Your task to perform on an android device: change the clock display to analog Image 0: 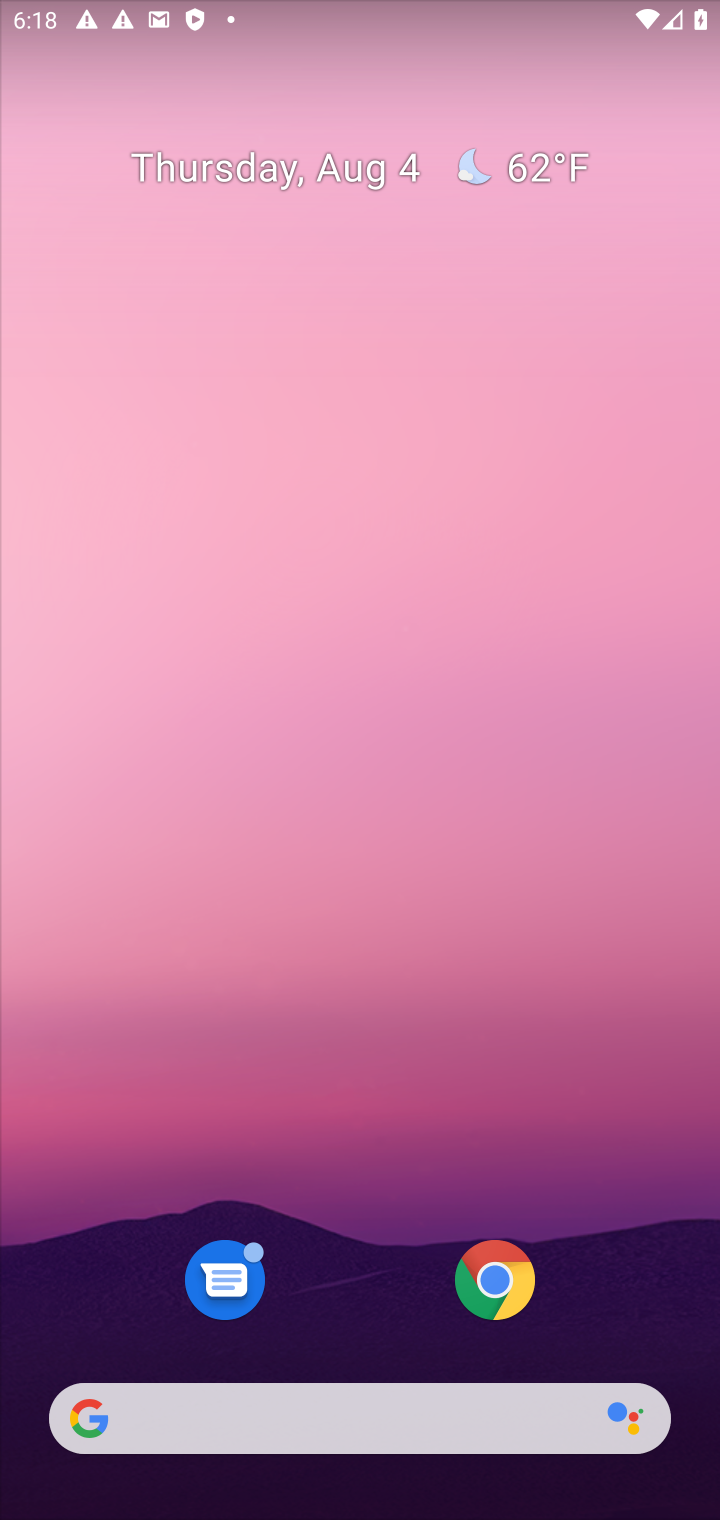
Step 0: drag from (324, 1262) to (271, 90)
Your task to perform on an android device: change the clock display to analog Image 1: 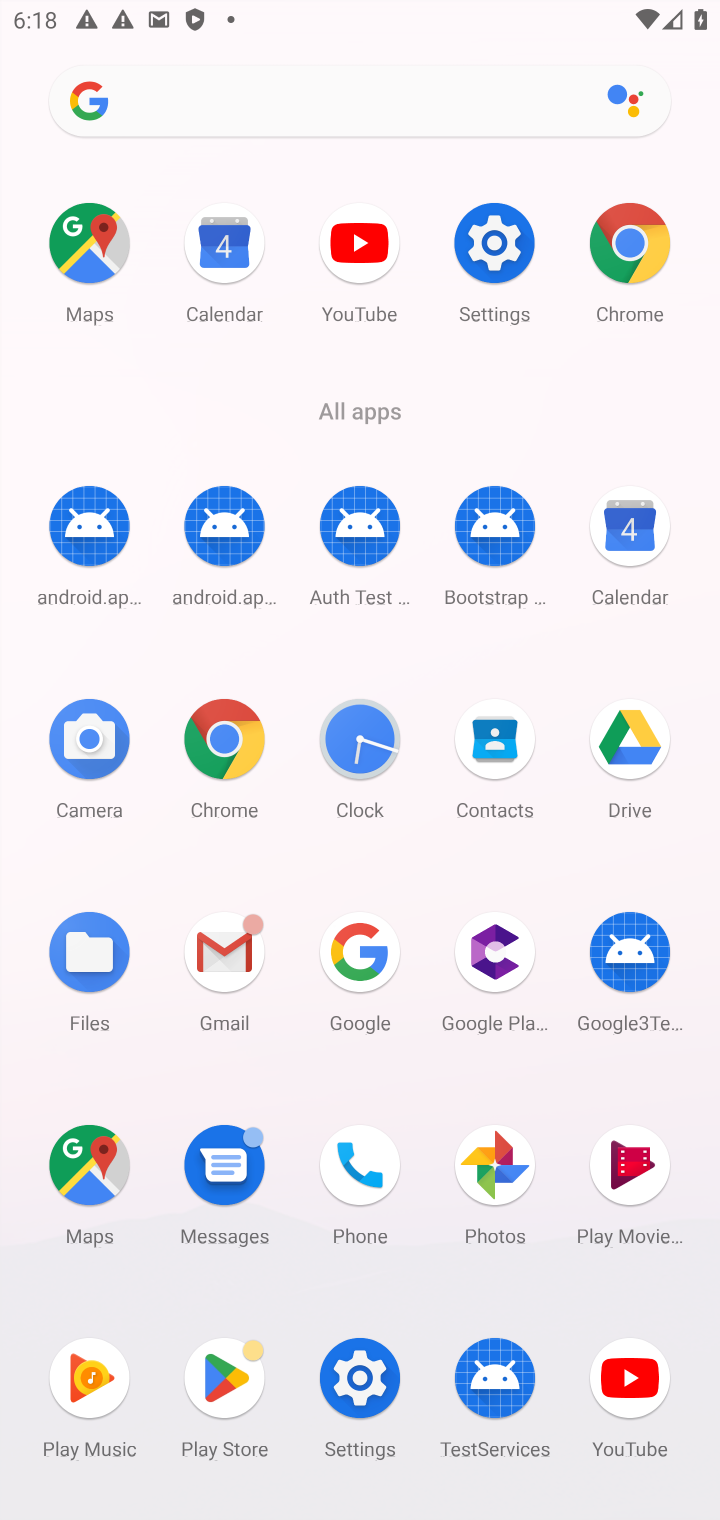
Step 1: click (356, 1377)
Your task to perform on an android device: change the clock display to analog Image 2: 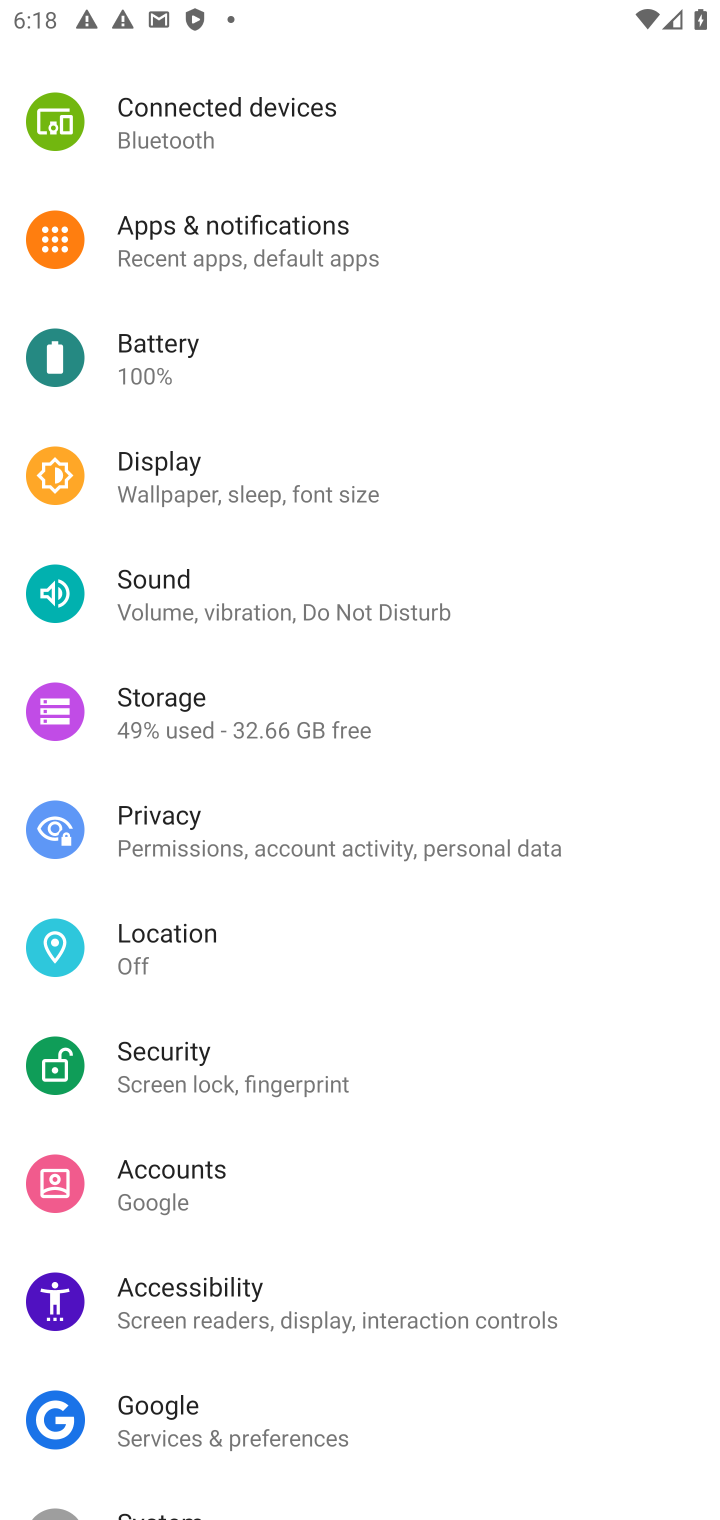
Step 2: press back button
Your task to perform on an android device: change the clock display to analog Image 3: 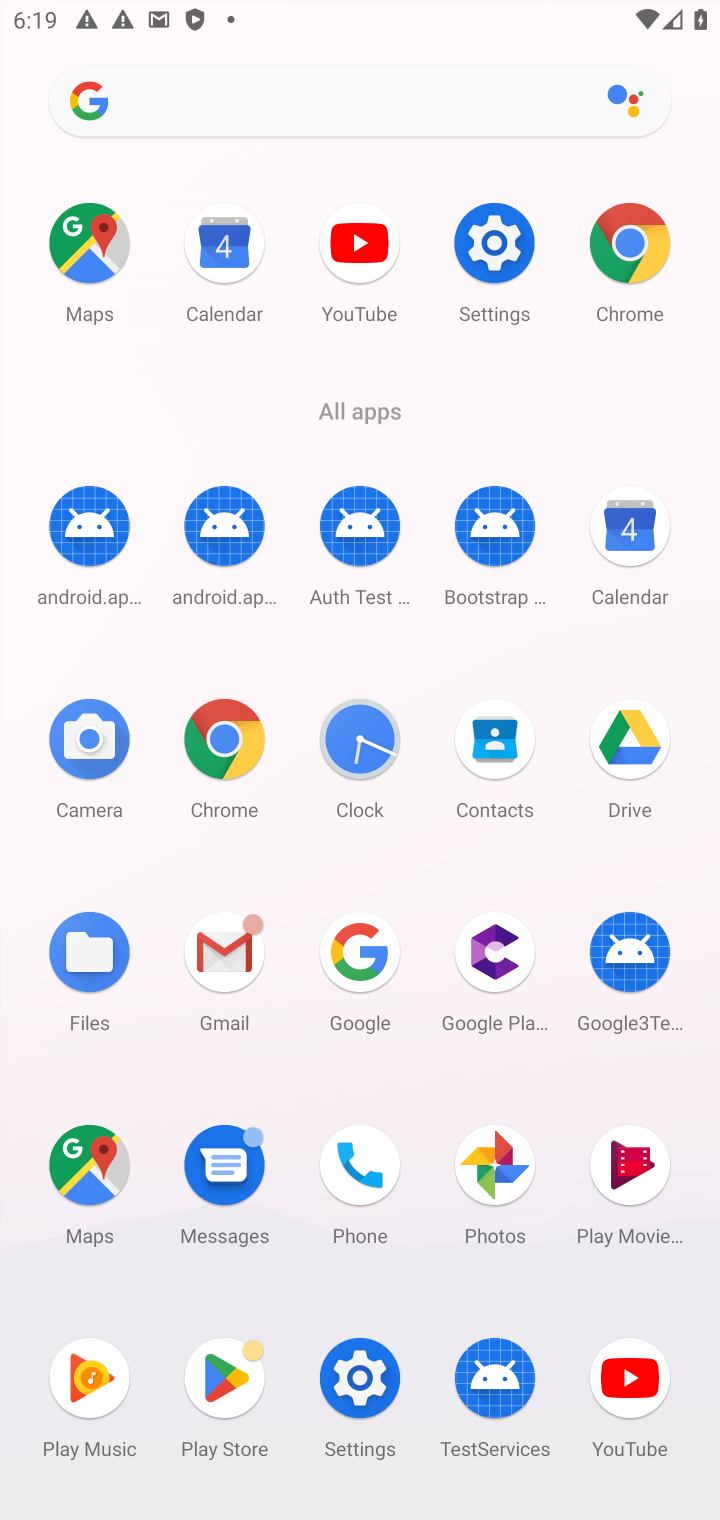
Step 3: click (372, 757)
Your task to perform on an android device: change the clock display to analog Image 4: 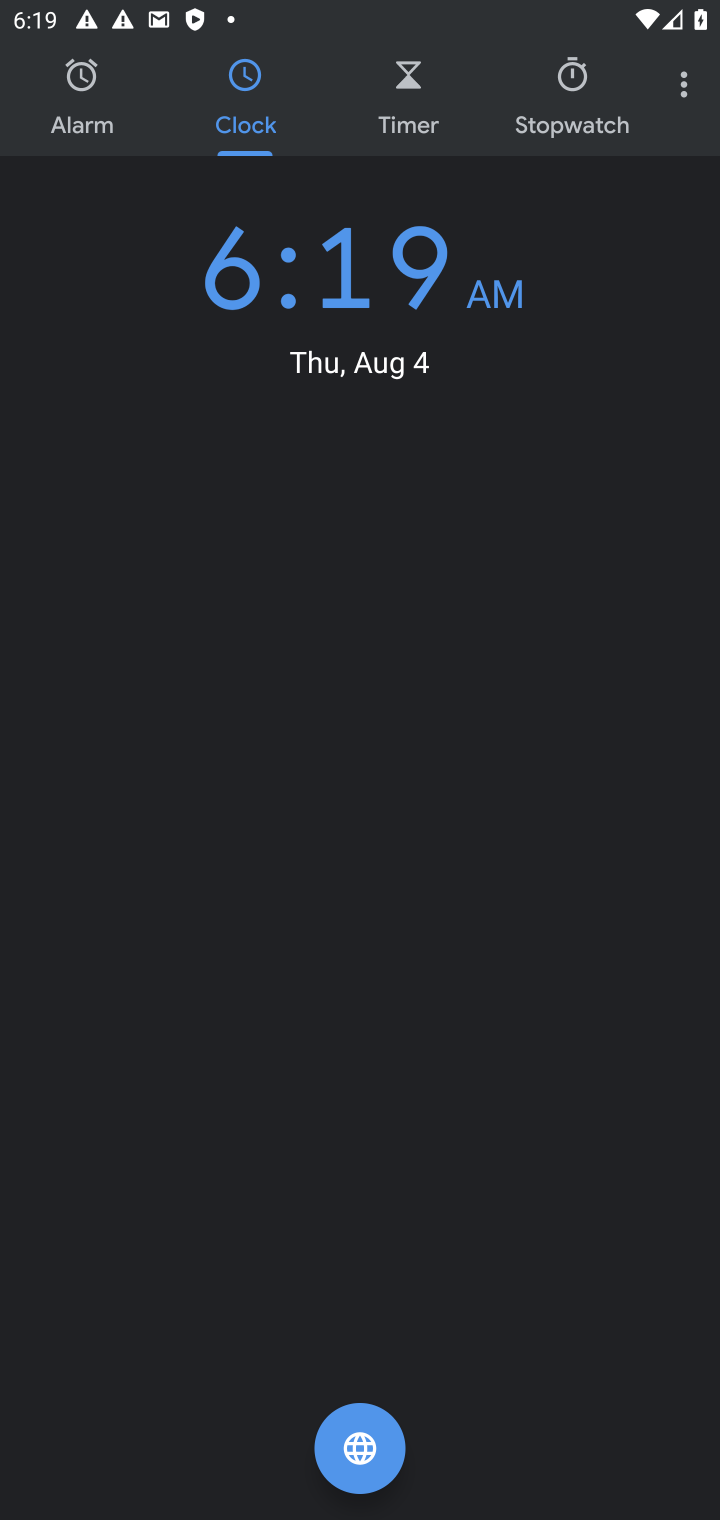
Step 4: click (690, 78)
Your task to perform on an android device: change the clock display to analog Image 5: 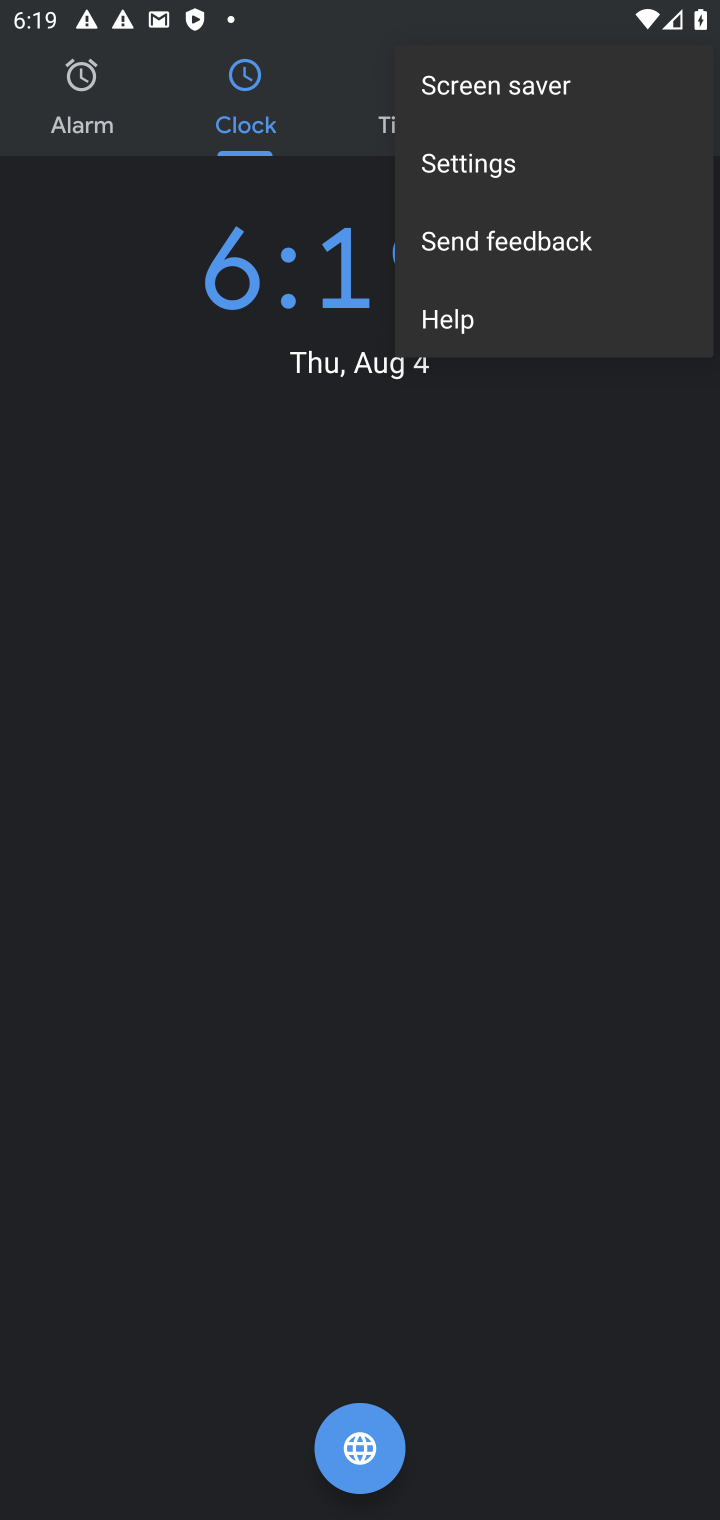
Step 5: click (478, 173)
Your task to perform on an android device: change the clock display to analog Image 6: 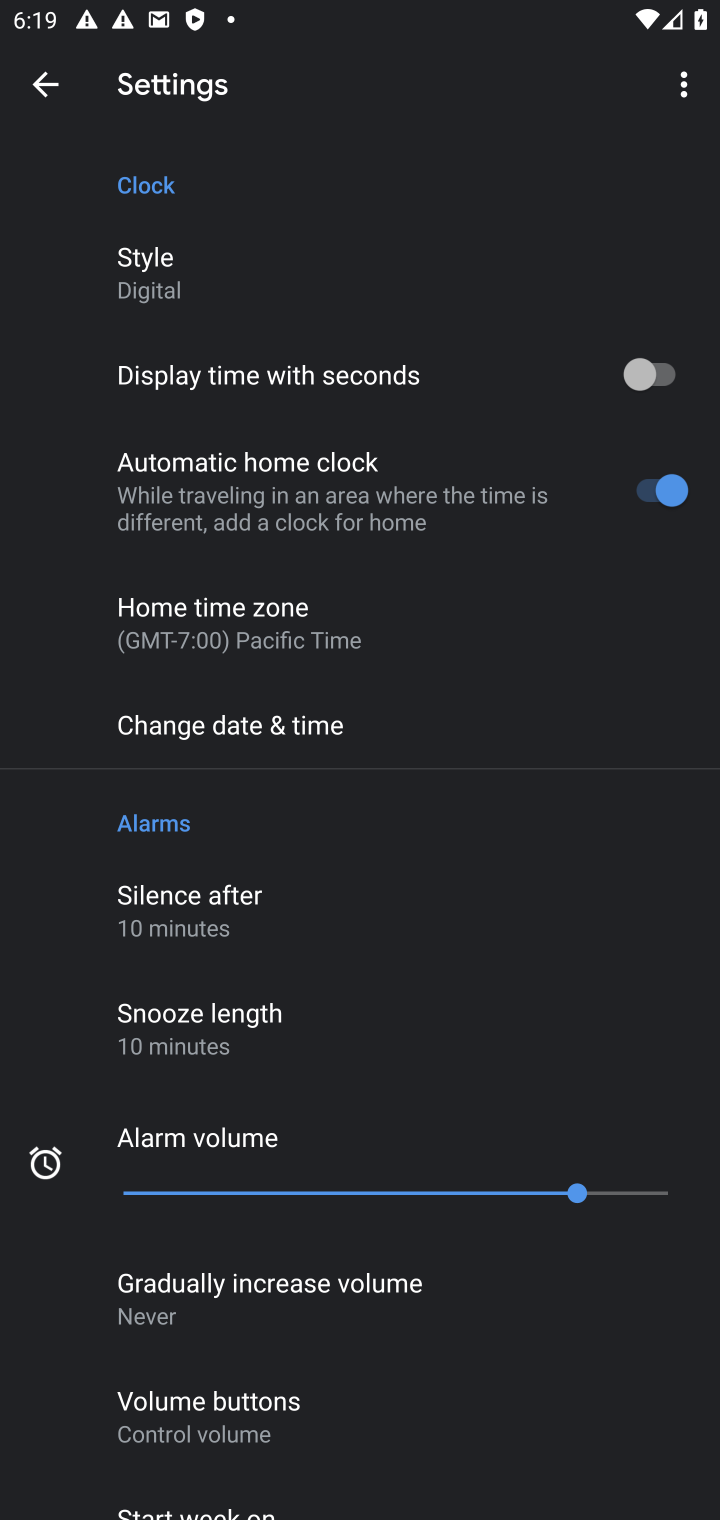
Step 6: click (478, 173)
Your task to perform on an android device: change the clock display to analog Image 7: 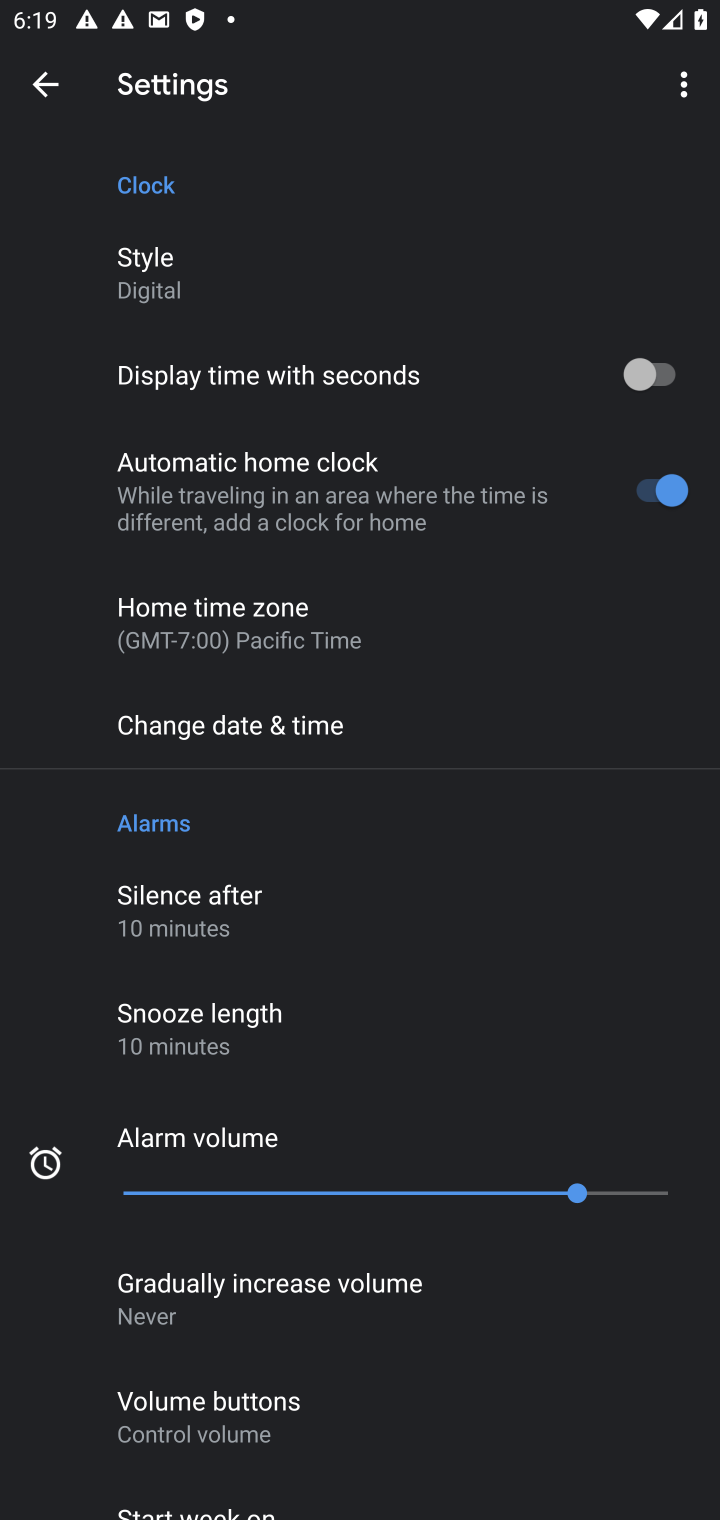
Step 7: click (145, 292)
Your task to perform on an android device: change the clock display to analog Image 8: 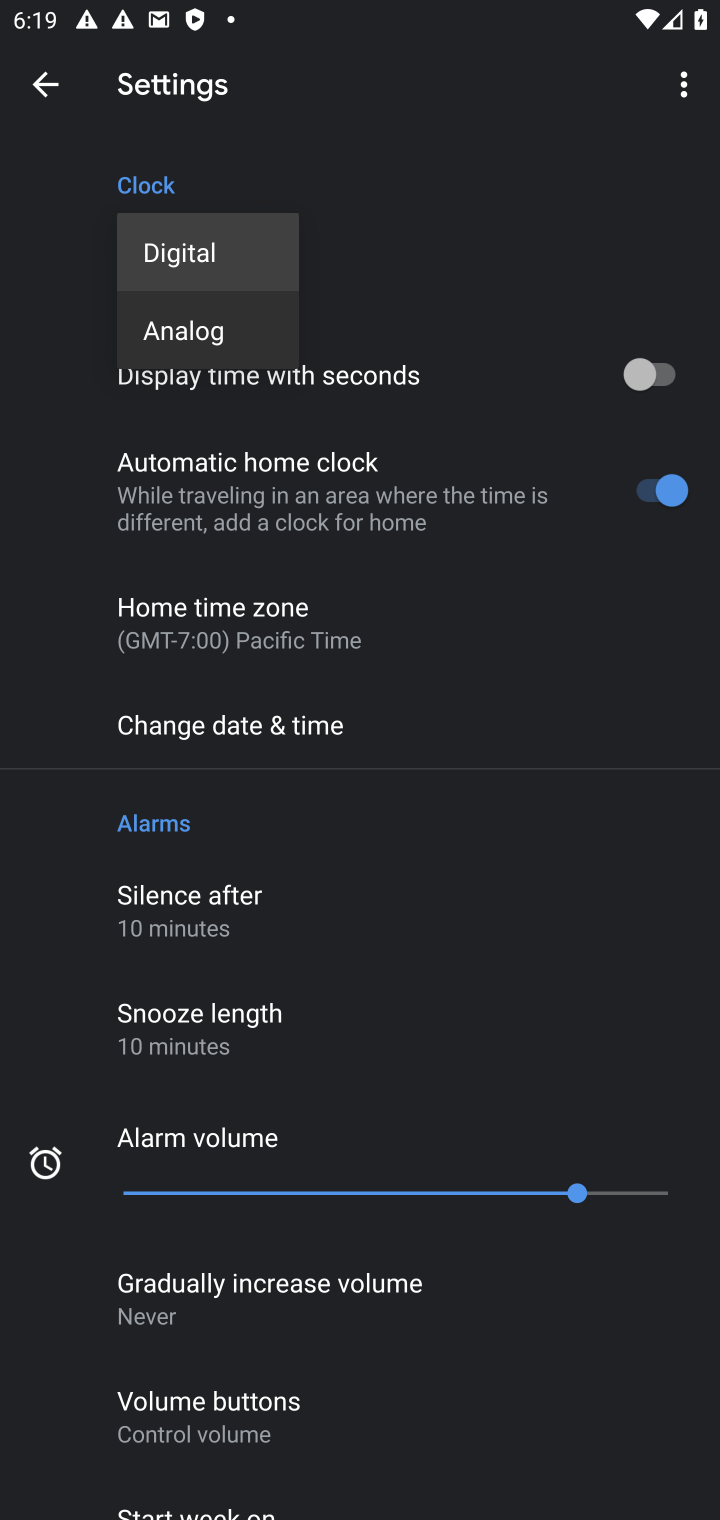
Step 8: click (160, 330)
Your task to perform on an android device: change the clock display to analog Image 9: 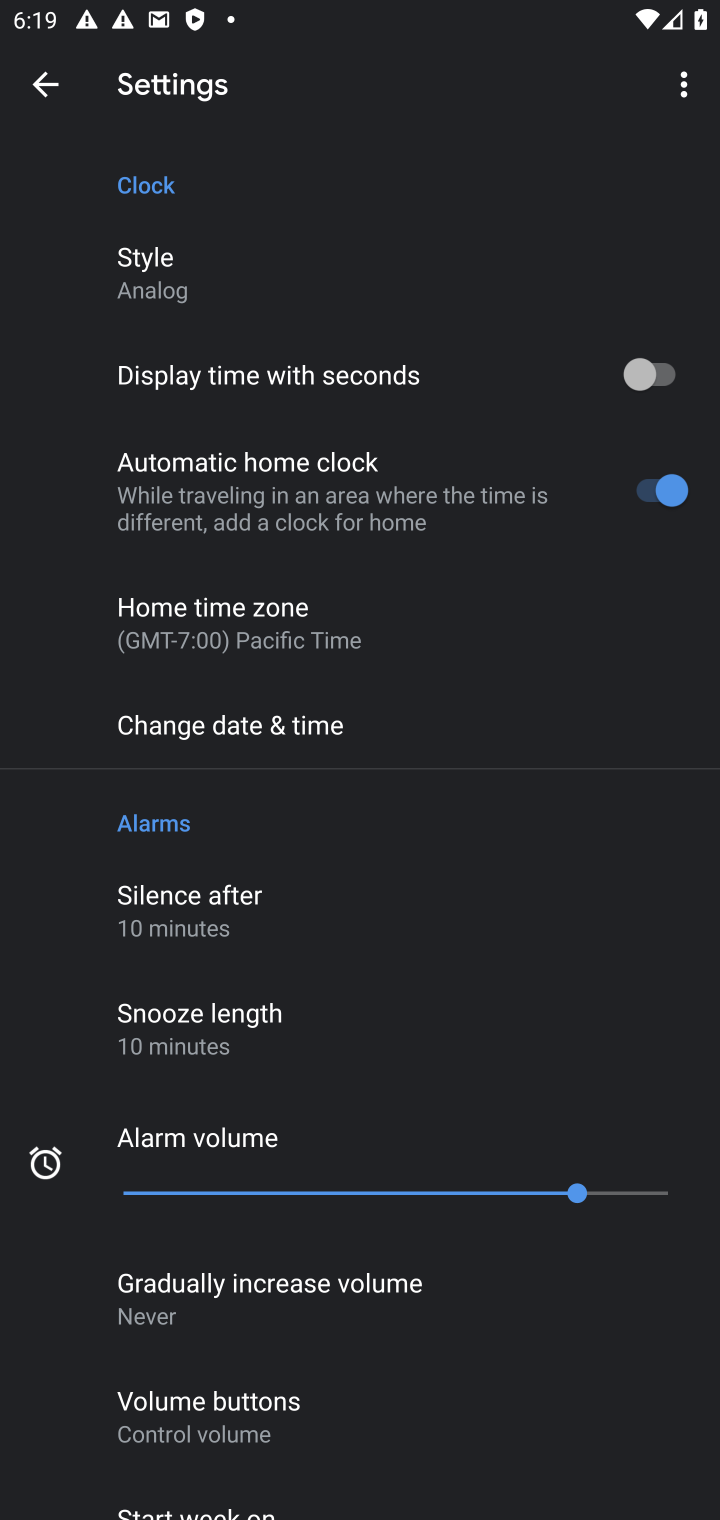
Step 9: task complete